Your task to perform on an android device: change alarm snooze length Image 0: 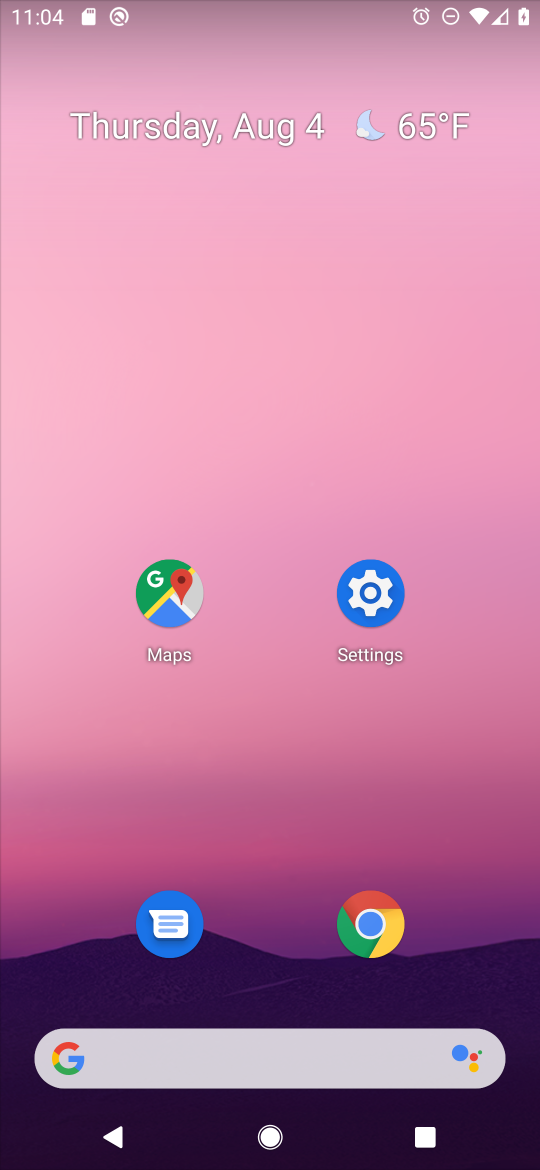
Step 0: press home button
Your task to perform on an android device: change alarm snooze length Image 1: 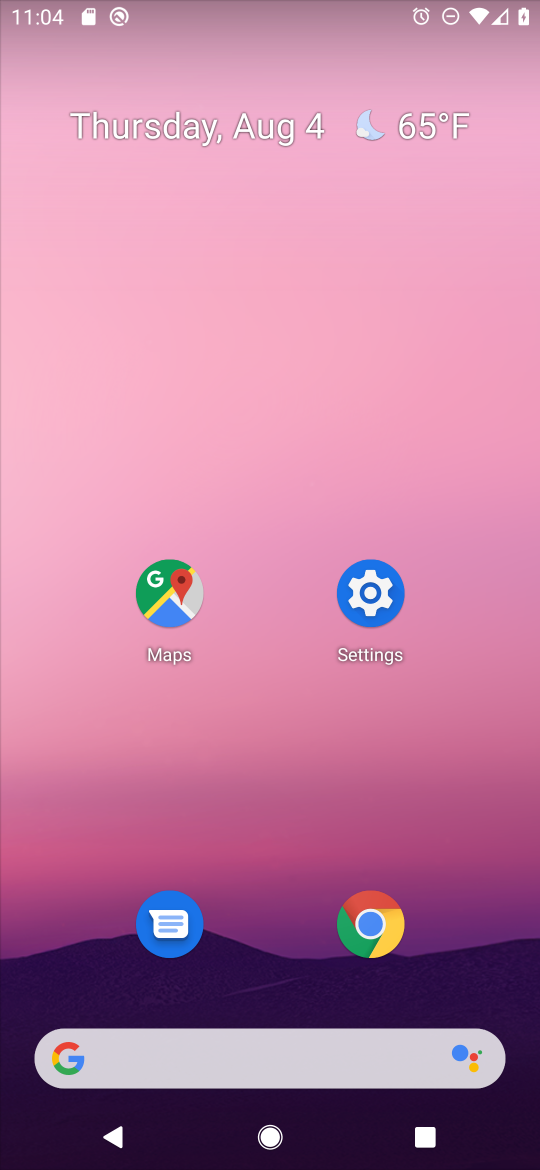
Step 1: drag from (249, 1052) to (18, 1137)
Your task to perform on an android device: change alarm snooze length Image 2: 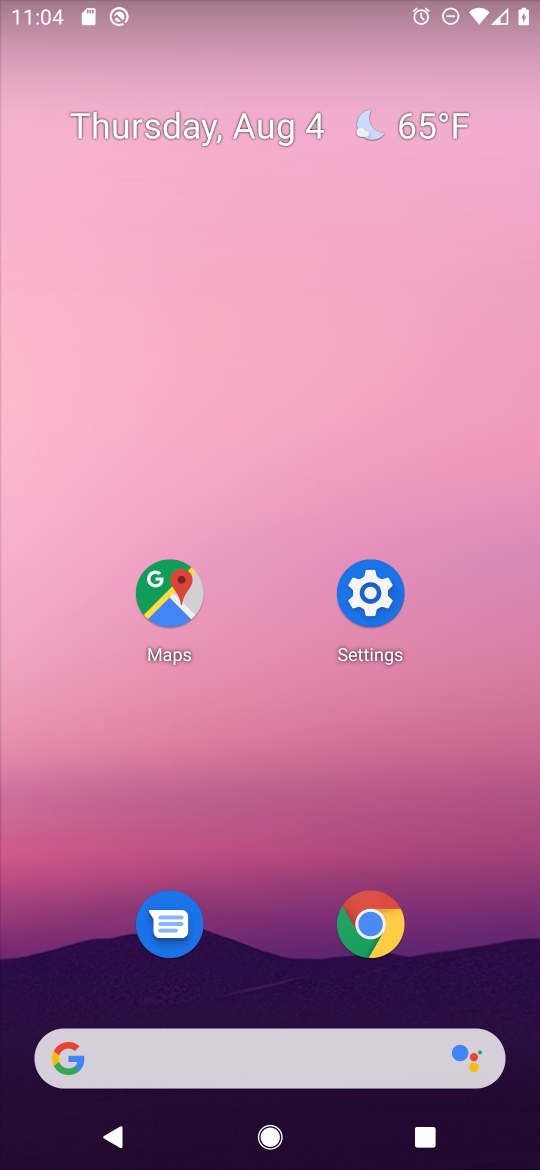
Step 2: drag from (257, 1047) to (437, 93)
Your task to perform on an android device: change alarm snooze length Image 3: 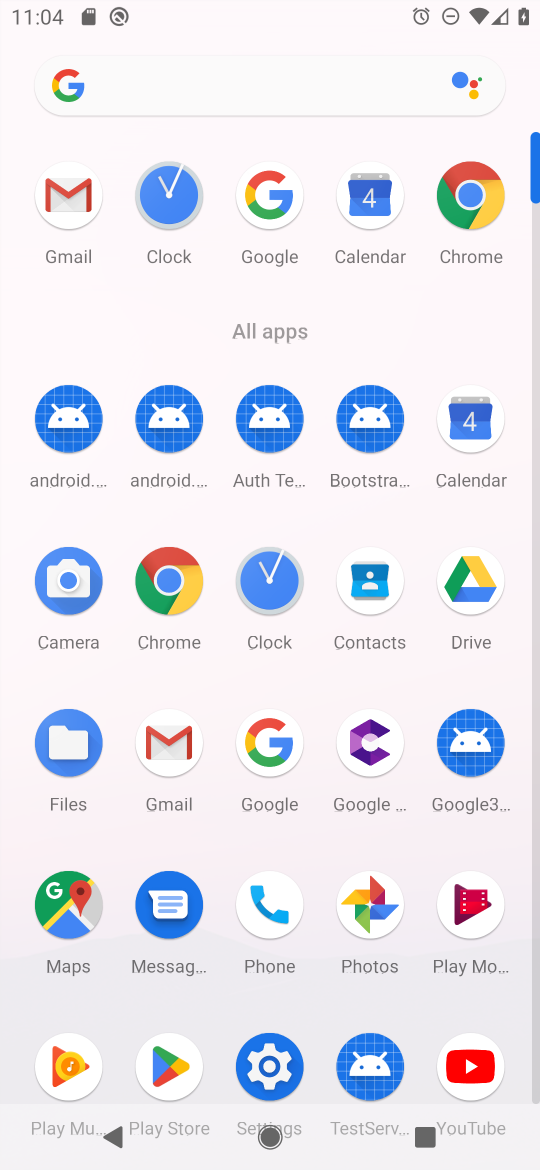
Step 3: click (171, 210)
Your task to perform on an android device: change alarm snooze length Image 4: 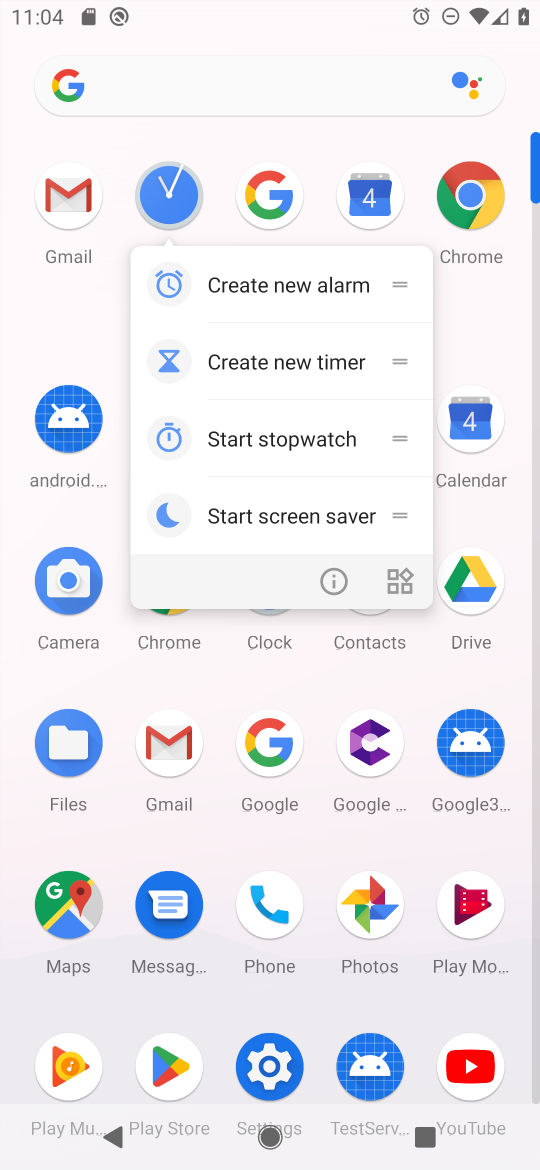
Step 4: click (169, 190)
Your task to perform on an android device: change alarm snooze length Image 5: 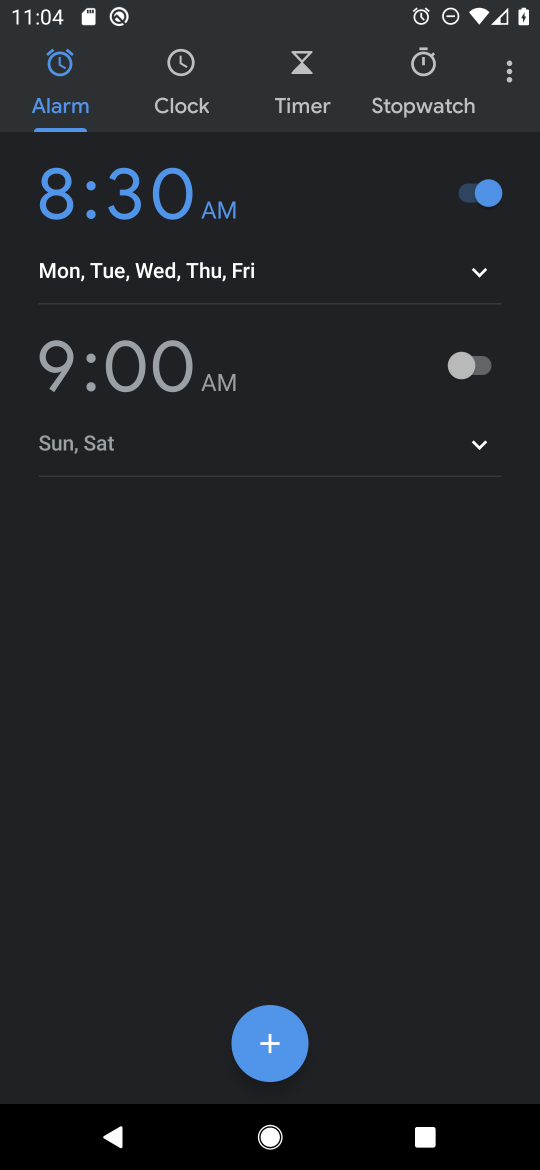
Step 5: click (512, 72)
Your task to perform on an android device: change alarm snooze length Image 6: 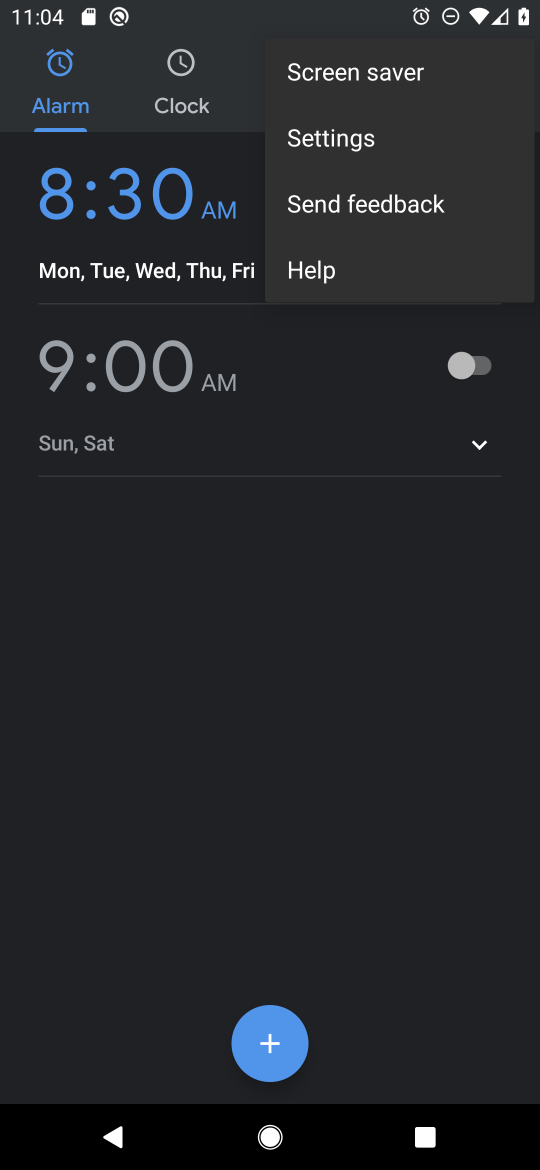
Step 6: click (351, 135)
Your task to perform on an android device: change alarm snooze length Image 7: 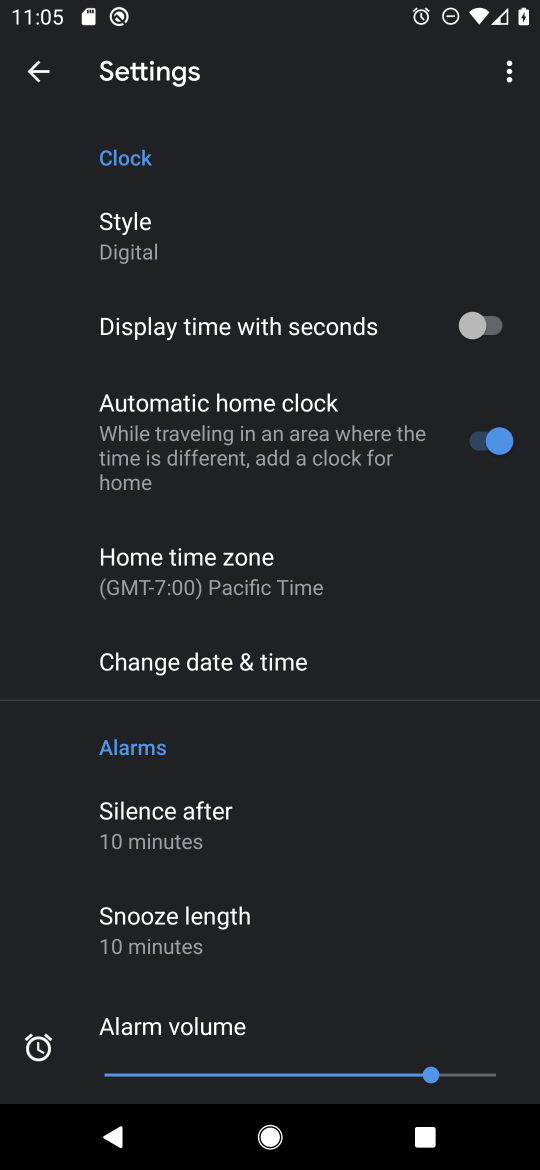
Step 7: click (197, 935)
Your task to perform on an android device: change alarm snooze length Image 8: 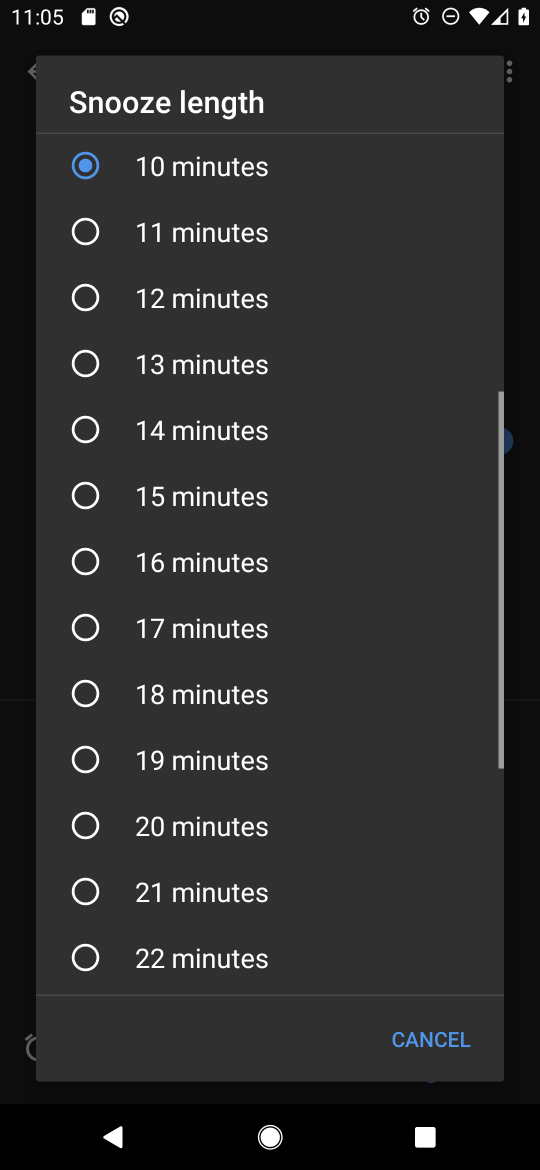
Step 8: click (88, 487)
Your task to perform on an android device: change alarm snooze length Image 9: 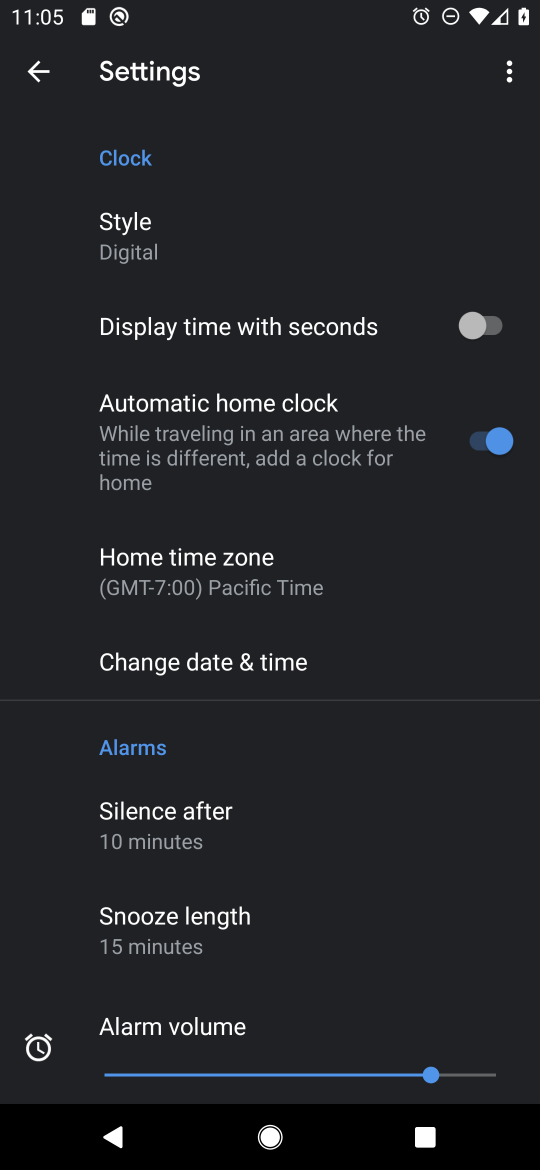
Step 9: task complete